Your task to perform on an android device: Open Google Image 0: 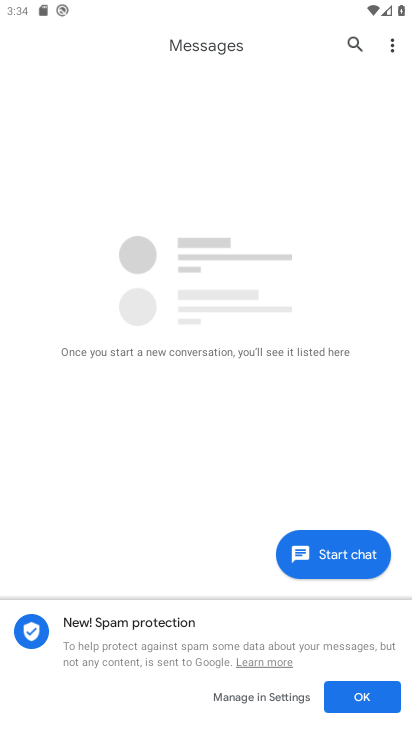
Step 0: press home button
Your task to perform on an android device: Open Google Image 1: 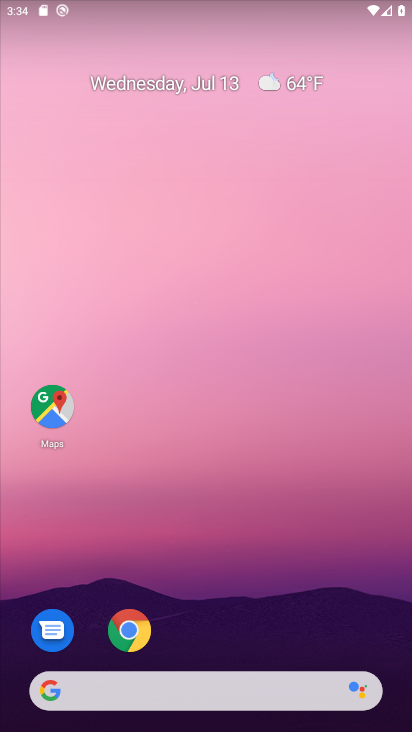
Step 1: click (121, 688)
Your task to perform on an android device: Open Google Image 2: 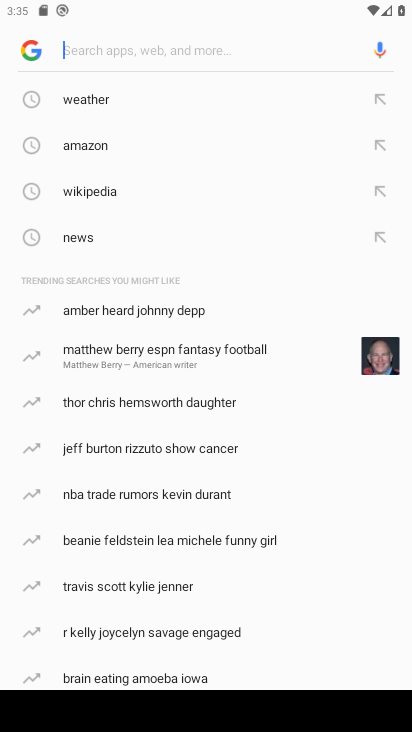
Step 2: task complete